Your task to perform on an android device: allow notifications from all sites in the chrome app Image 0: 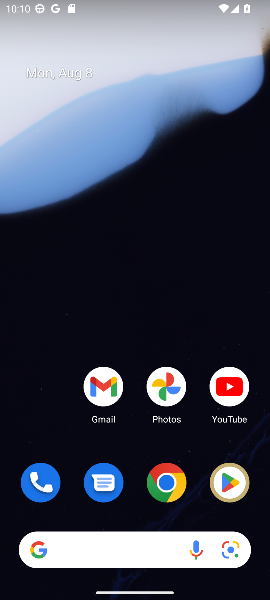
Step 0: click (162, 487)
Your task to perform on an android device: allow notifications from all sites in the chrome app Image 1: 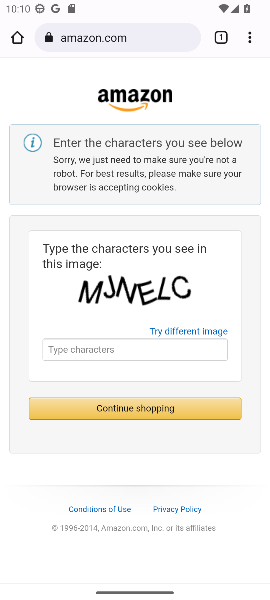
Step 1: click (250, 31)
Your task to perform on an android device: allow notifications from all sites in the chrome app Image 2: 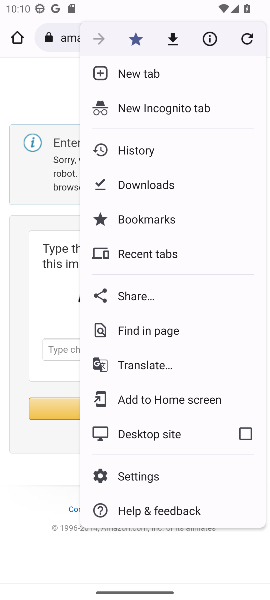
Step 2: click (162, 471)
Your task to perform on an android device: allow notifications from all sites in the chrome app Image 3: 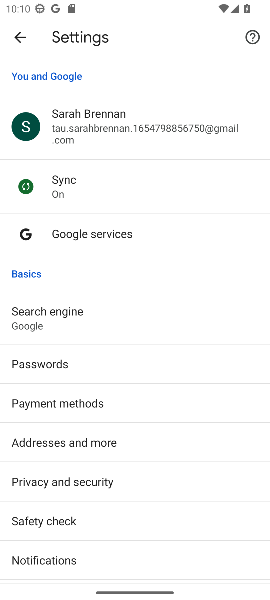
Step 3: click (63, 556)
Your task to perform on an android device: allow notifications from all sites in the chrome app Image 4: 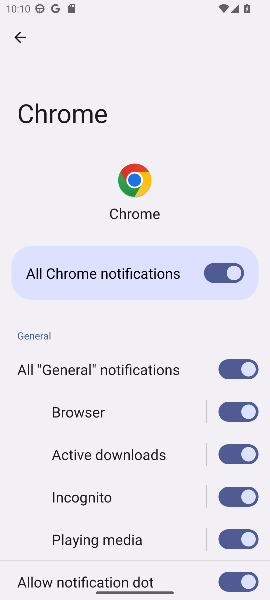
Step 4: task complete